Your task to perform on an android device: turn notification dots off Image 0: 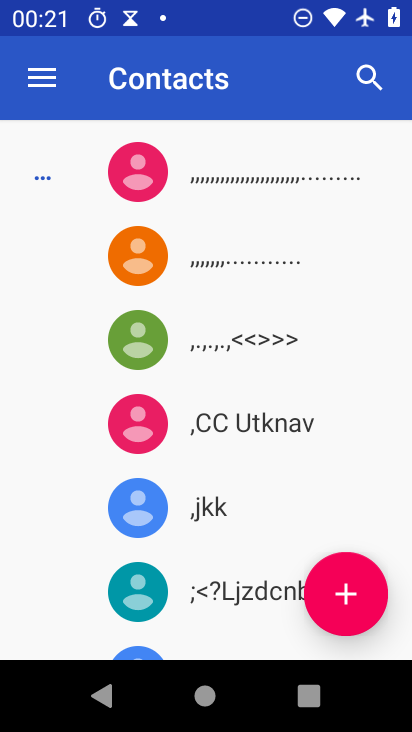
Step 0: press back button
Your task to perform on an android device: turn notification dots off Image 1: 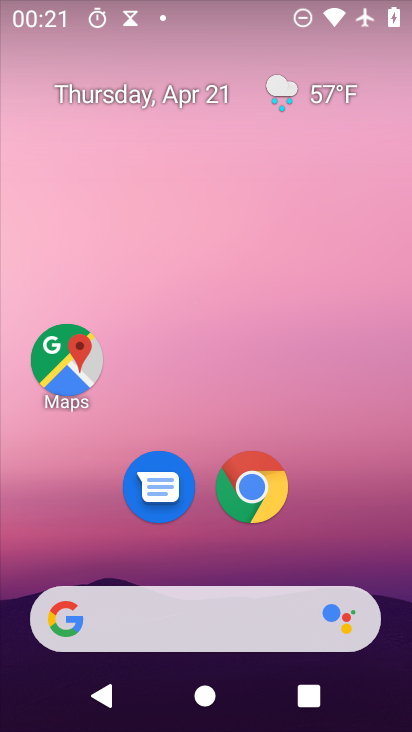
Step 1: drag from (343, 544) to (232, 17)
Your task to perform on an android device: turn notification dots off Image 2: 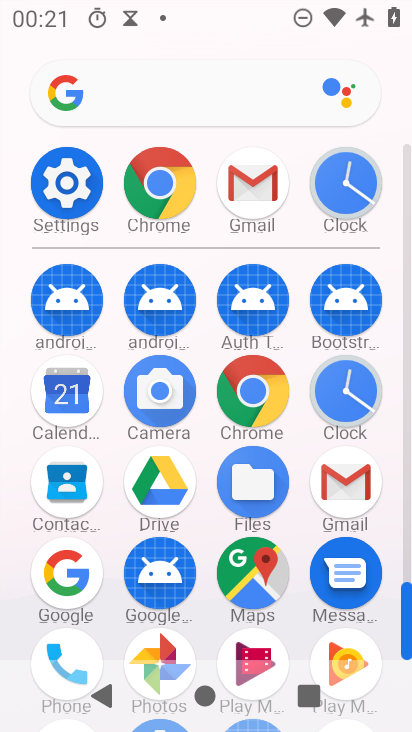
Step 2: click (74, 180)
Your task to perform on an android device: turn notification dots off Image 3: 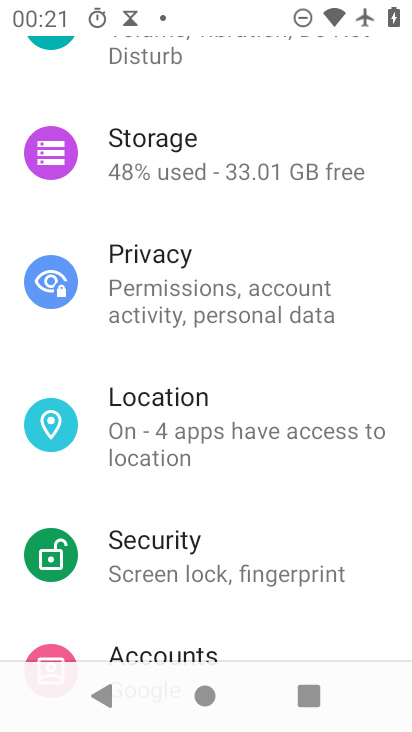
Step 3: drag from (238, 137) to (260, 523)
Your task to perform on an android device: turn notification dots off Image 4: 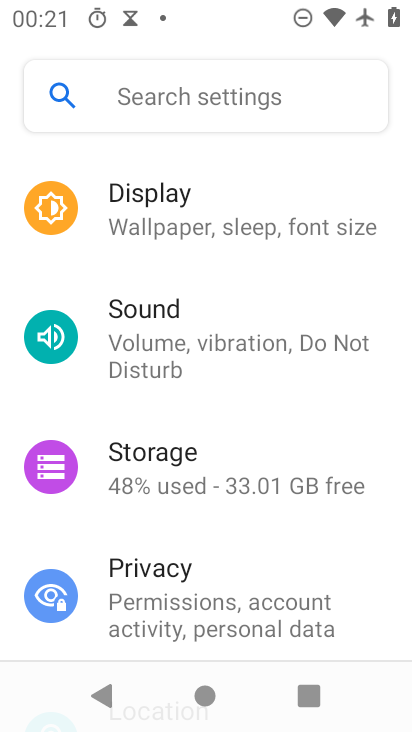
Step 4: drag from (238, 254) to (282, 561)
Your task to perform on an android device: turn notification dots off Image 5: 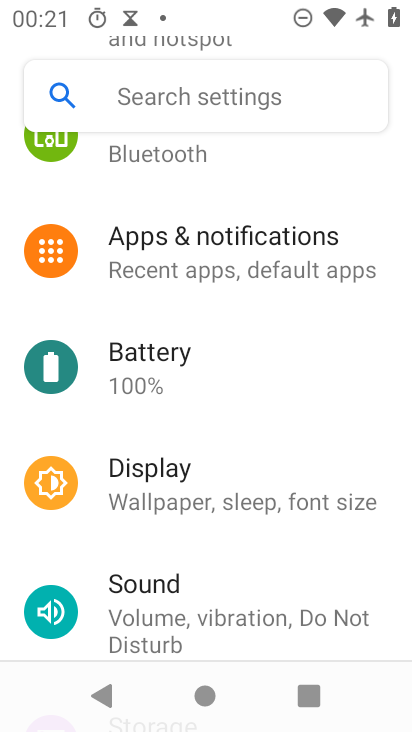
Step 5: click (221, 241)
Your task to perform on an android device: turn notification dots off Image 6: 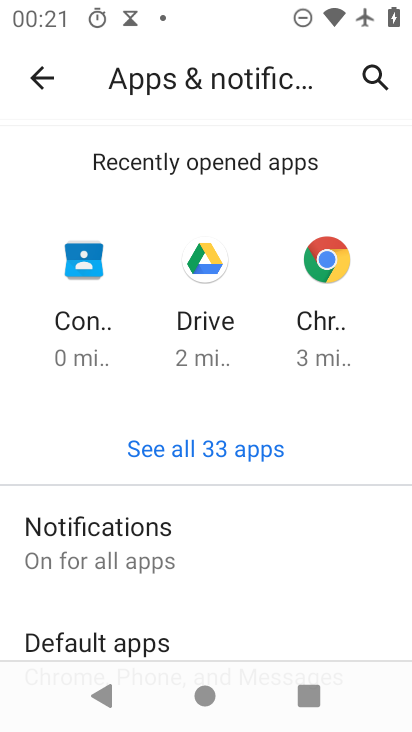
Step 6: drag from (292, 527) to (261, 274)
Your task to perform on an android device: turn notification dots off Image 7: 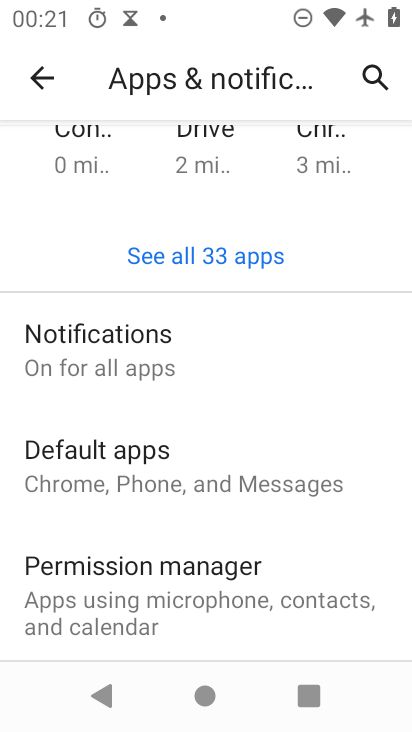
Step 7: click (122, 363)
Your task to perform on an android device: turn notification dots off Image 8: 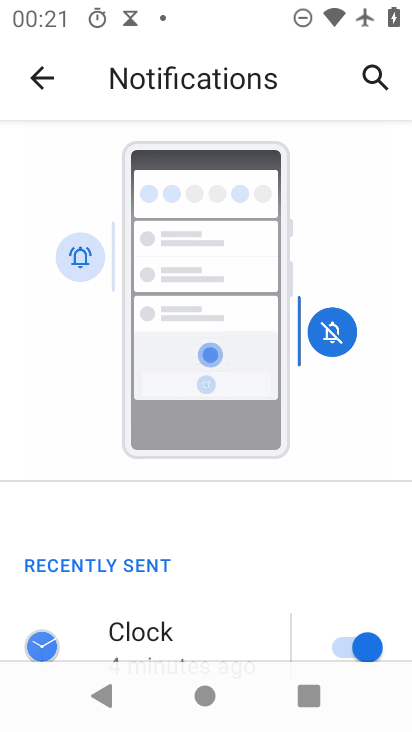
Step 8: drag from (219, 567) to (188, 228)
Your task to perform on an android device: turn notification dots off Image 9: 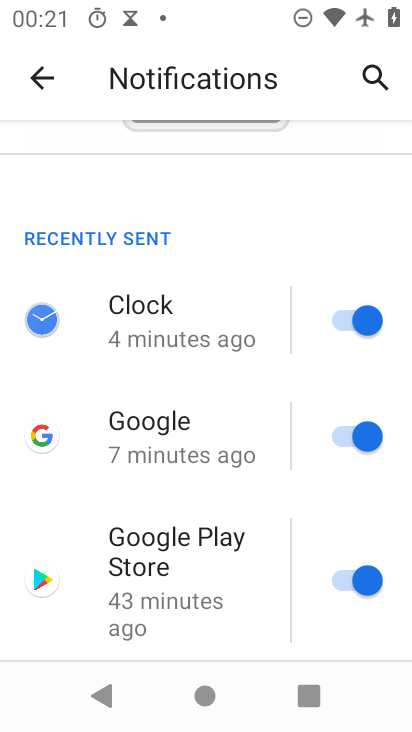
Step 9: drag from (199, 616) to (189, 241)
Your task to perform on an android device: turn notification dots off Image 10: 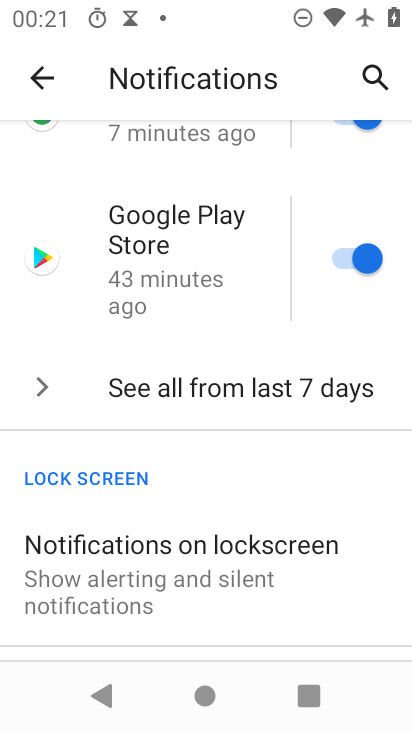
Step 10: drag from (207, 578) to (211, 200)
Your task to perform on an android device: turn notification dots off Image 11: 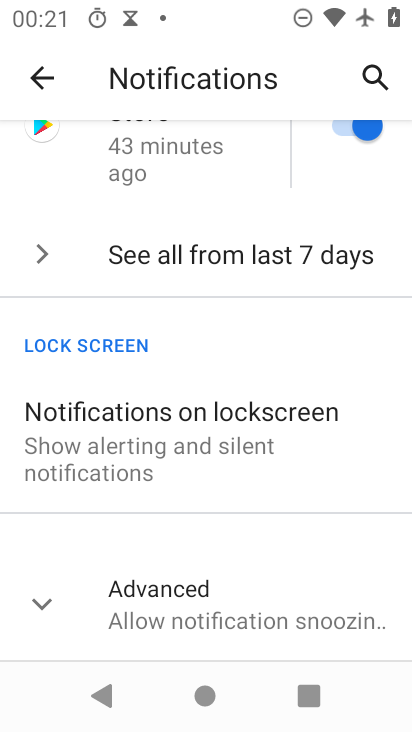
Step 11: click (211, 580)
Your task to perform on an android device: turn notification dots off Image 12: 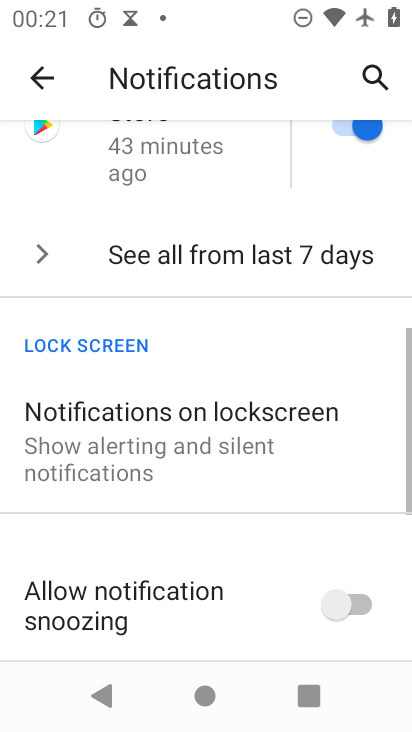
Step 12: task complete